Your task to perform on an android device: Go to calendar. Show me events next week Image 0: 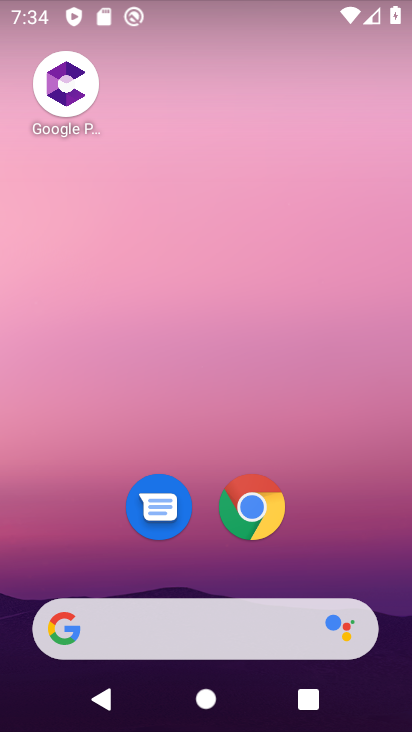
Step 0: drag from (365, 598) to (292, 10)
Your task to perform on an android device: Go to calendar. Show me events next week Image 1: 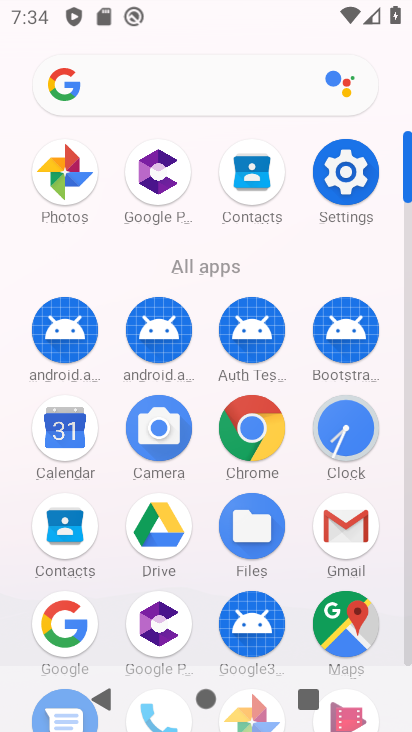
Step 1: click (64, 435)
Your task to perform on an android device: Go to calendar. Show me events next week Image 2: 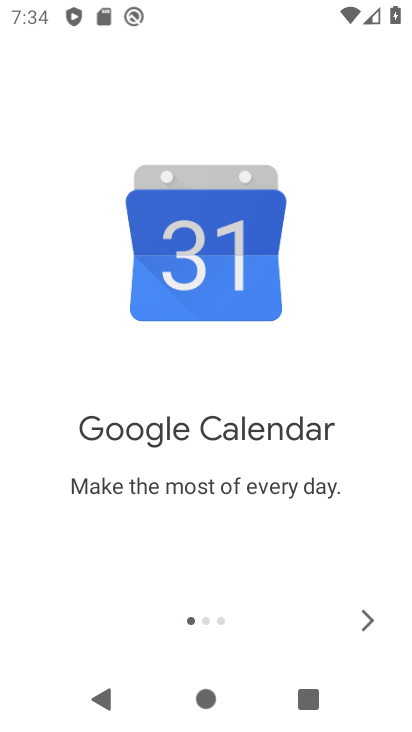
Step 2: click (364, 625)
Your task to perform on an android device: Go to calendar. Show me events next week Image 3: 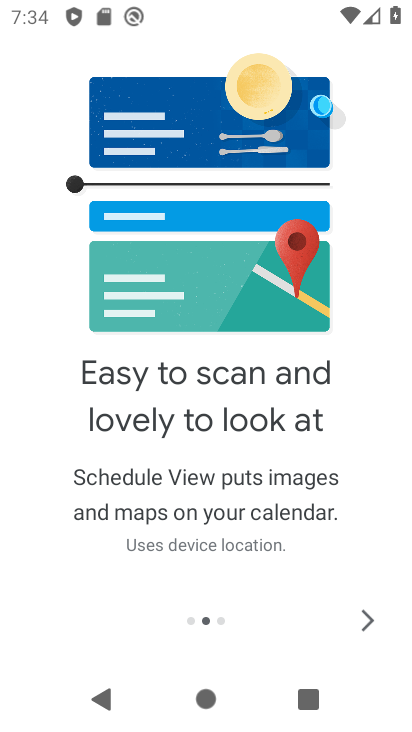
Step 3: click (364, 625)
Your task to perform on an android device: Go to calendar. Show me events next week Image 4: 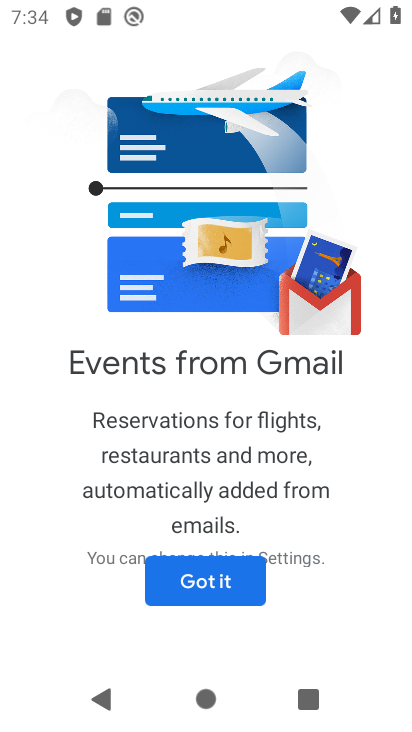
Step 4: click (205, 590)
Your task to perform on an android device: Go to calendar. Show me events next week Image 5: 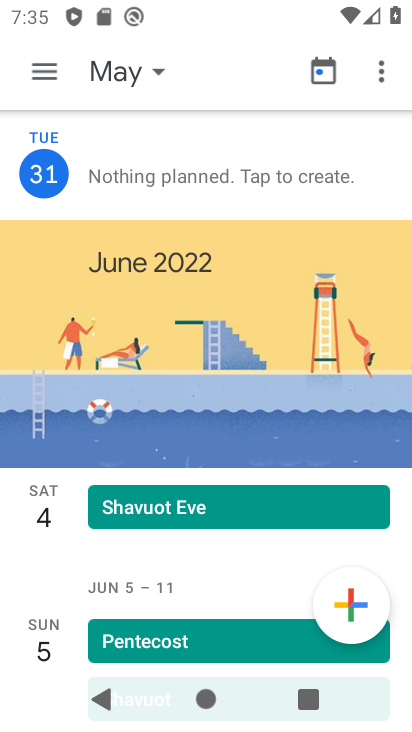
Step 5: click (155, 76)
Your task to perform on an android device: Go to calendar. Show me events next week Image 6: 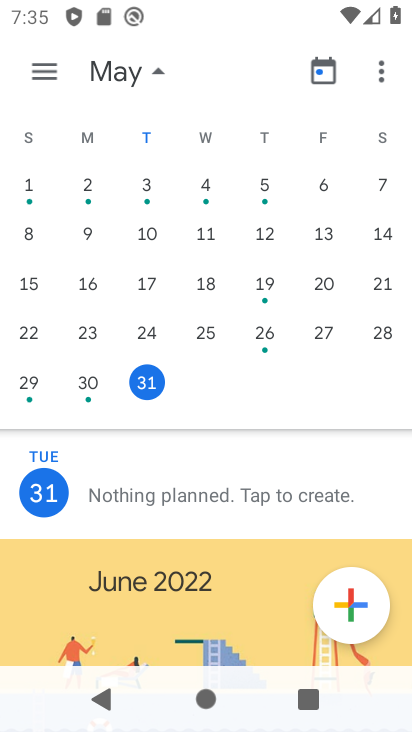
Step 6: click (44, 79)
Your task to perform on an android device: Go to calendar. Show me events next week Image 7: 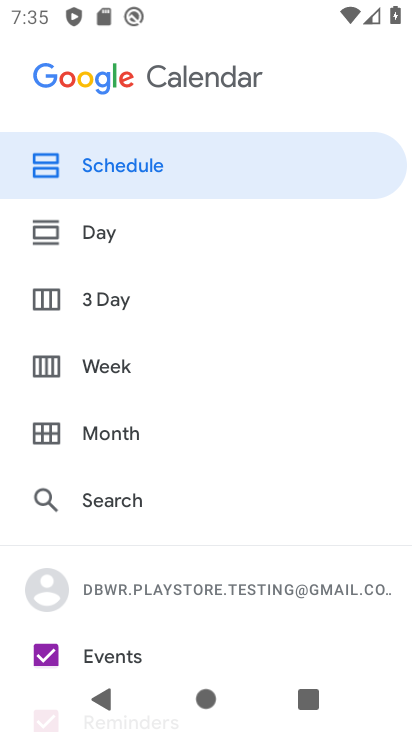
Step 7: drag from (133, 561) to (110, 289)
Your task to perform on an android device: Go to calendar. Show me events next week Image 8: 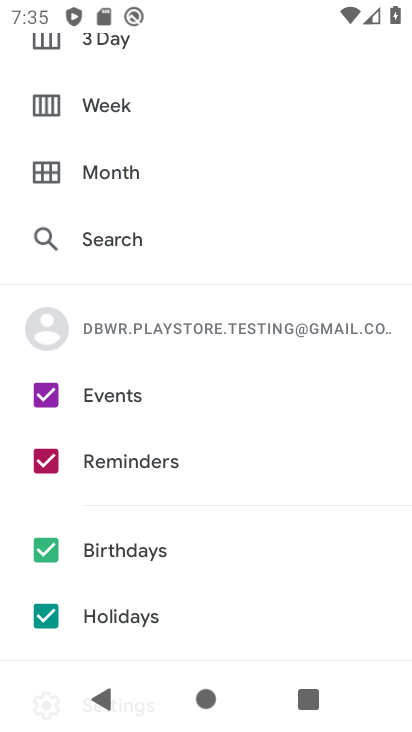
Step 8: click (39, 444)
Your task to perform on an android device: Go to calendar. Show me events next week Image 9: 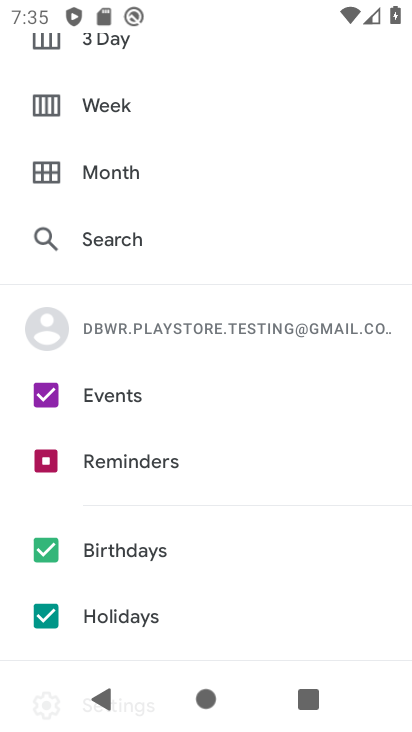
Step 9: click (49, 557)
Your task to perform on an android device: Go to calendar. Show me events next week Image 10: 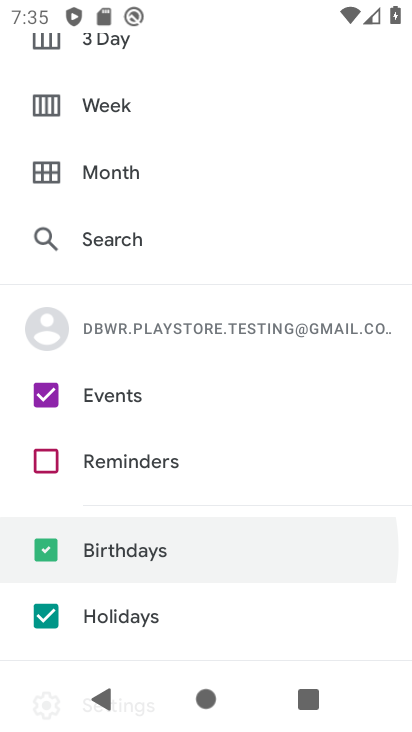
Step 10: click (49, 603)
Your task to perform on an android device: Go to calendar. Show me events next week Image 11: 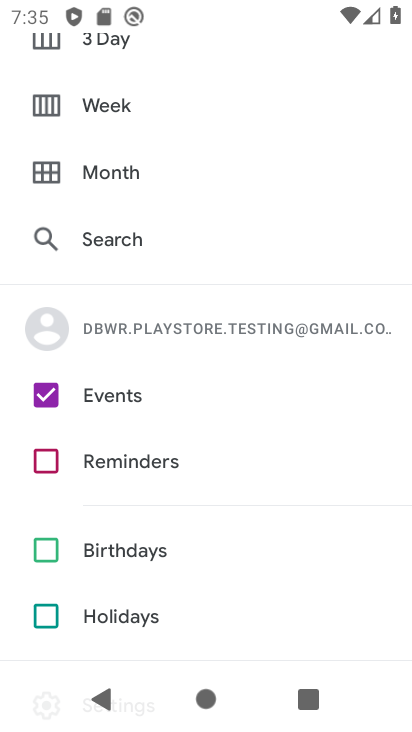
Step 11: click (43, 108)
Your task to perform on an android device: Go to calendar. Show me events next week Image 12: 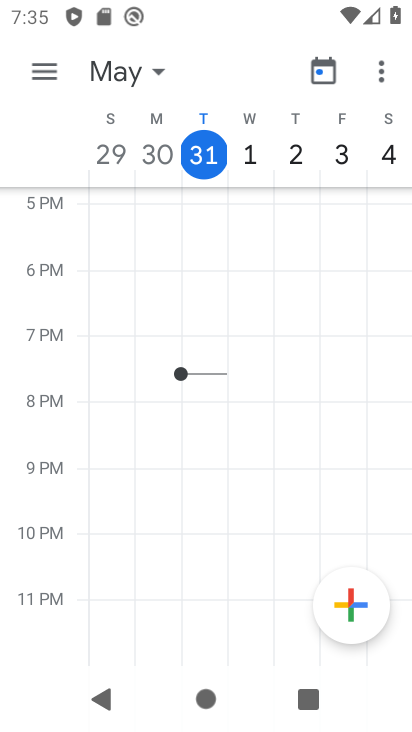
Step 12: task complete